Your task to perform on an android device: turn notification dots off Image 0: 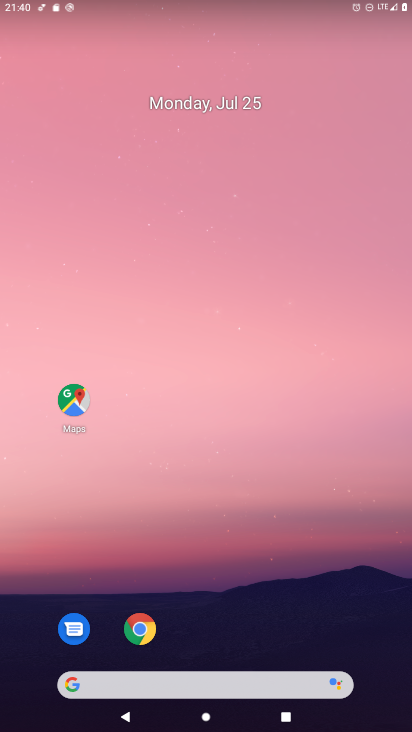
Step 0: drag from (216, 680) to (234, 154)
Your task to perform on an android device: turn notification dots off Image 1: 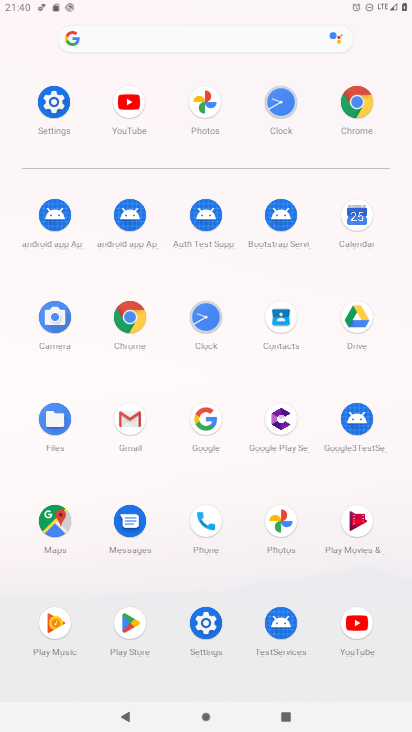
Step 1: click (54, 102)
Your task to perform on an android device: turn notification dots off Image 2: 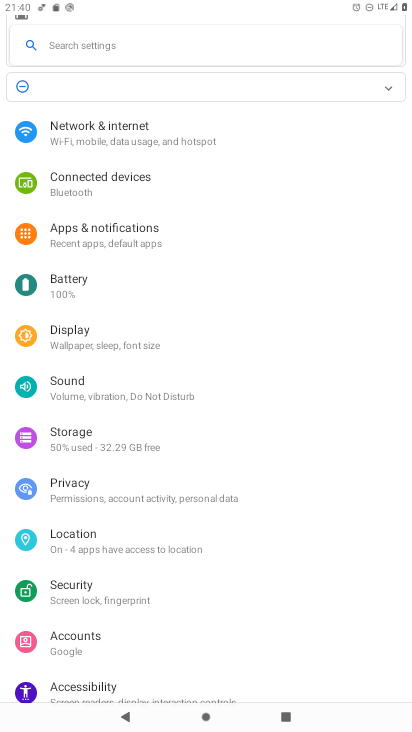
Step 2: click (94, 235)
Your task to perform on an android device: turn notification dots off Image 3: 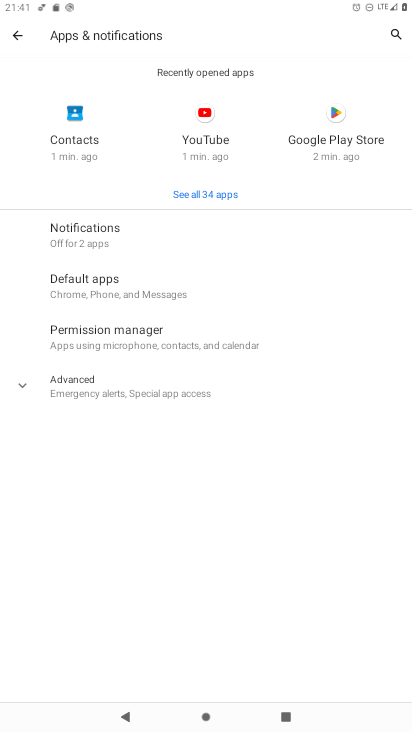
Step 3: click (88, 239)
Your task to perform on an android device: turn notification dots off Image 4: 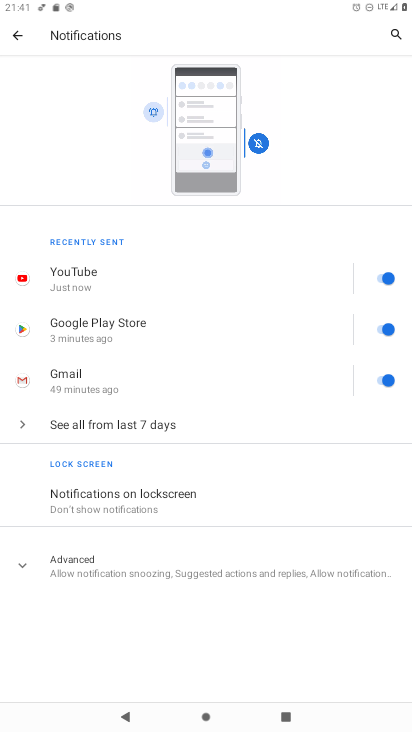
Step 4: click (158, 568)
Your task to perform on an android device: turn notification dots off Image 5: 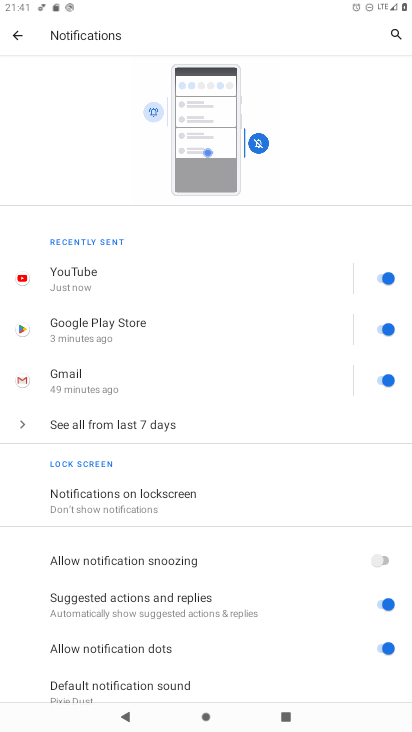
Step 5: click (380, 649)
Your task to perform on an android device: turn notification dots off Image 6: 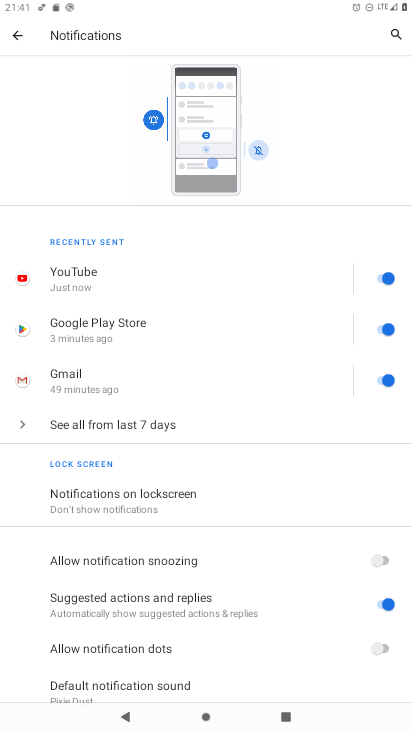
Step 6: task complete